Your task to perform on an android device: What is the news today? Image 0: 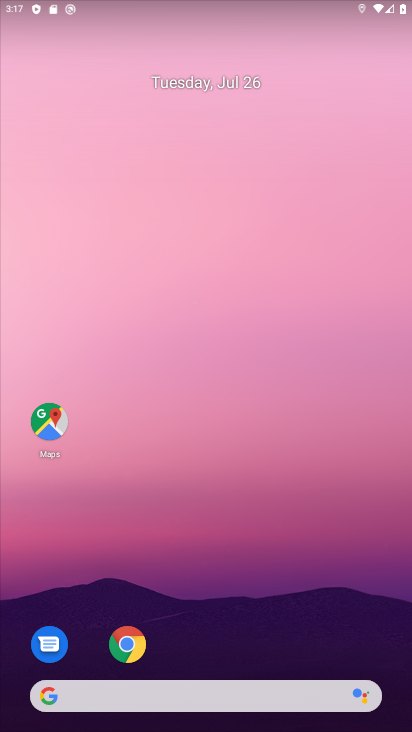
Step 0: drag from (195, 587) to (204, 280)
Your task to perform on an android device: What is the news today? Image 1: 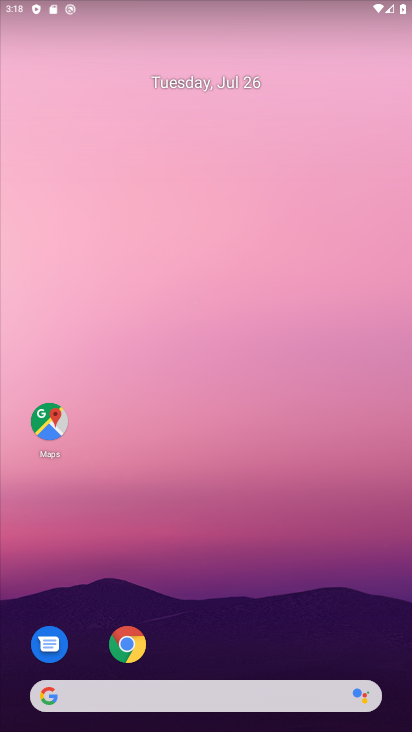
Step 1: drag from (213, 603) to (169, 168)
Your task to perform on an android device: What is the news today? Image 2: 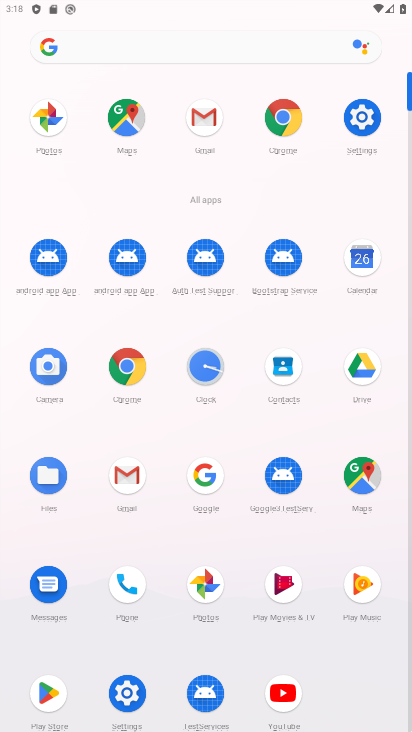
Step 2: click (133, 47)
Your task to perform on an android device: What is the news today? Image 3: 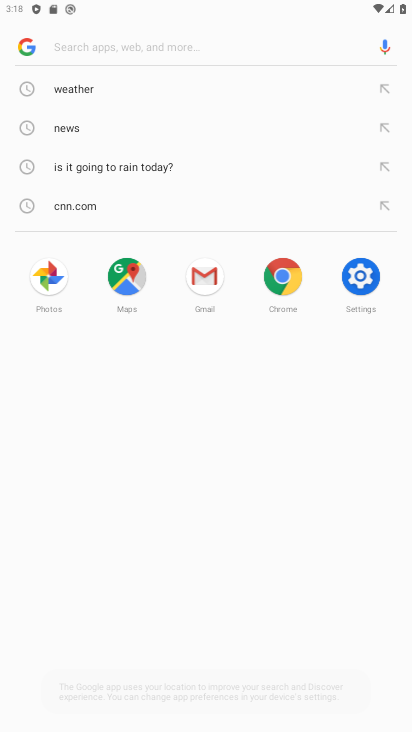
Step 3: click (74, 119)
Your task to perform on an android device: What is the news today? Image 4: 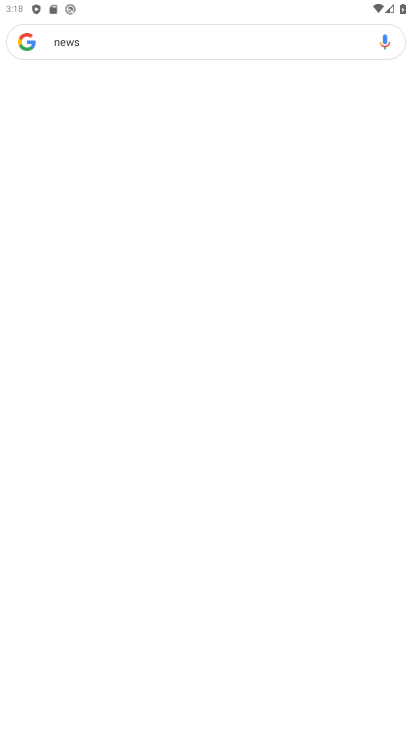
Step 4: click (125, 50)
Your task to perform on an android device: What is the news today? Image 5: 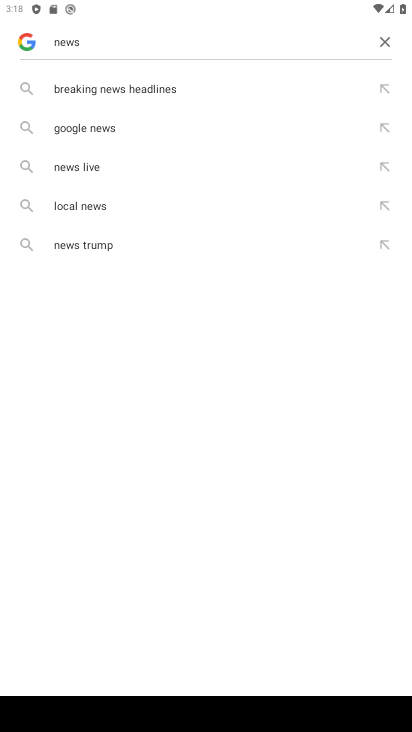
Step 5: type " today"
Your task to perform on an android device: What is the news today? Image 6: 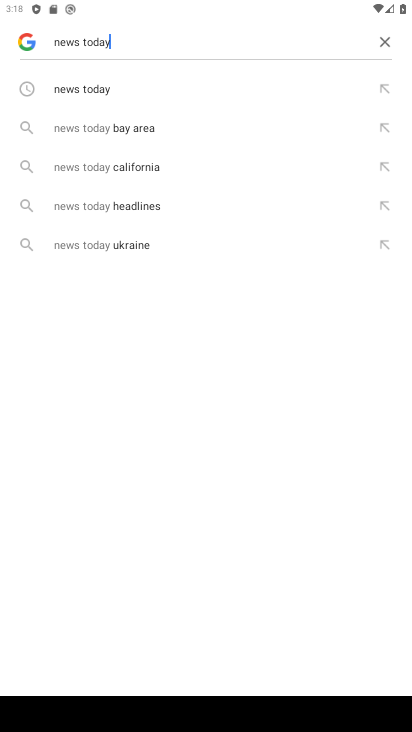
Step 6: click (100, 83)
Your task to perform on an android device: What is the news today? Image 7: 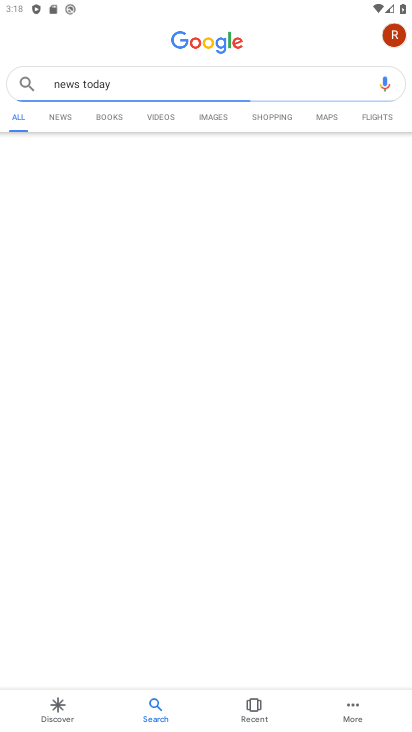
Step 7: task complete